Your task to perform on an android device: Open Youtube and go to the subscriptions tab Image 0: 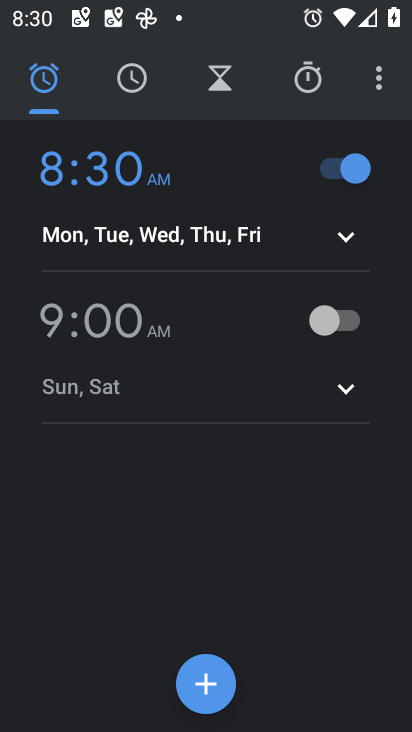
Step 0: press home button
Your task to perform on an android device: Open Youtube and go to the subscriptions tab Image 1: 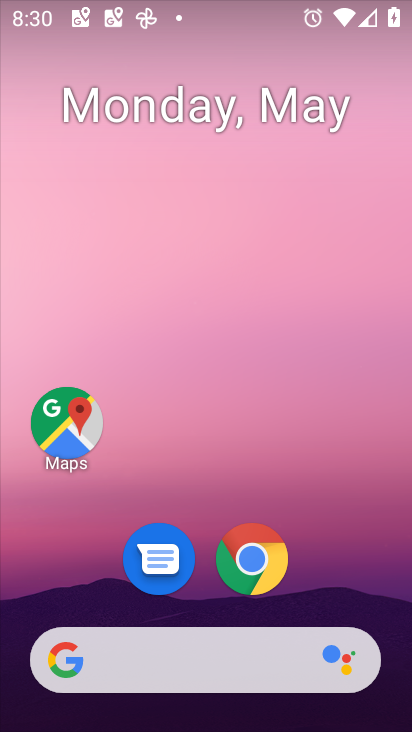
Step 1: drag from (382, 620) to (255, 37)
Your task to perform on an android device: Open Youtube and go to the subscriptions tab Image 2: 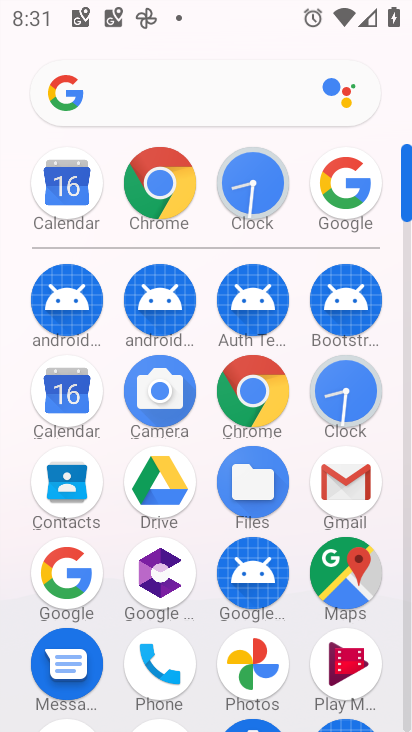
Step 2: drag from (302, 688) to (309, 271)
Your task to perform on an android device: Open Youtube and go to the subscriptions tab Image 3: 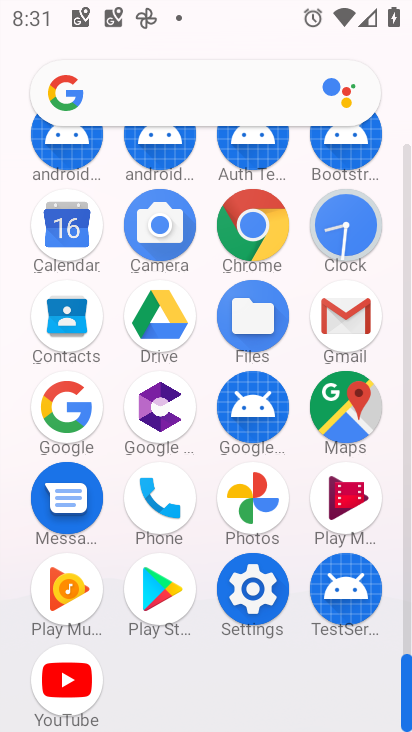
Step 3: click (67, 671)
Your task to perform on an android device: Open Youtube and go to the subscriptions tab Image 4: 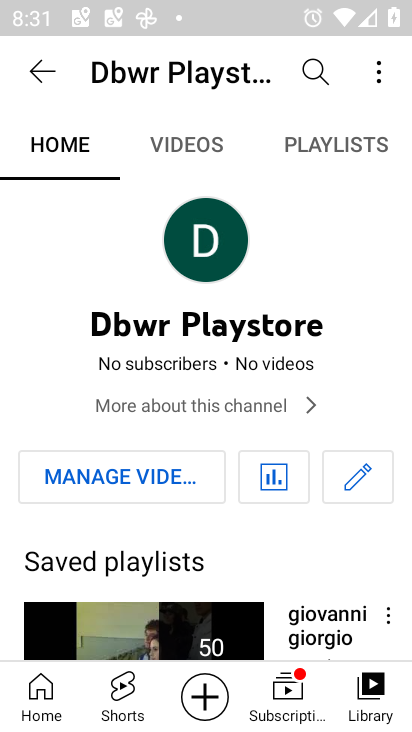
Step 4: click (287, 688)
Your task to perform on an android device: Open Youtube and go to the subscriptions tab Image 5: 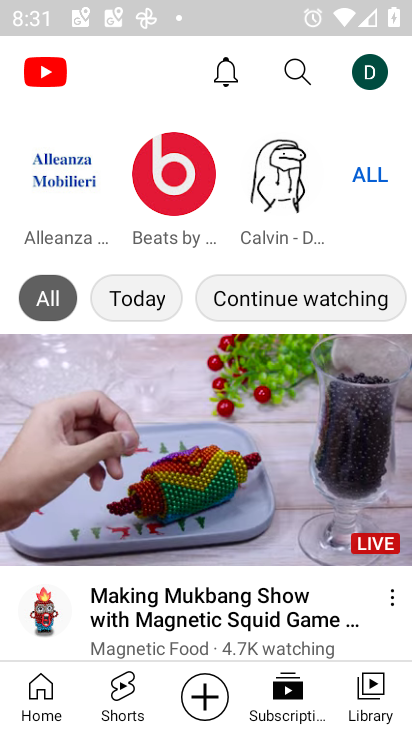
Step 5: task complete